Your task to perform on an android device: turn on wifi Image 0: 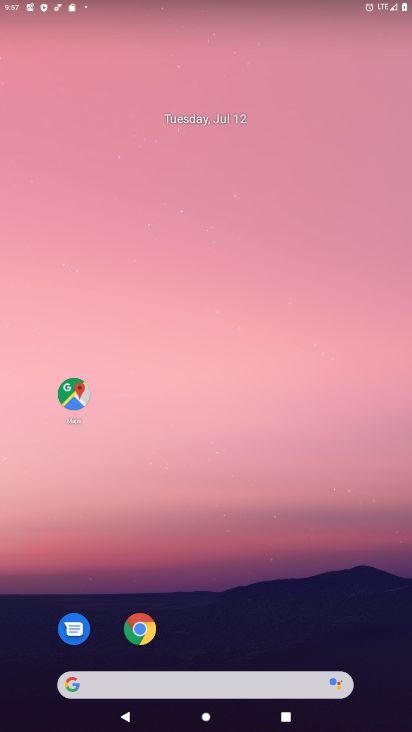
Step 0: drag from (383, 673) to (348, 237)
Your task to perform on an android device: turn on wifi Image 1: 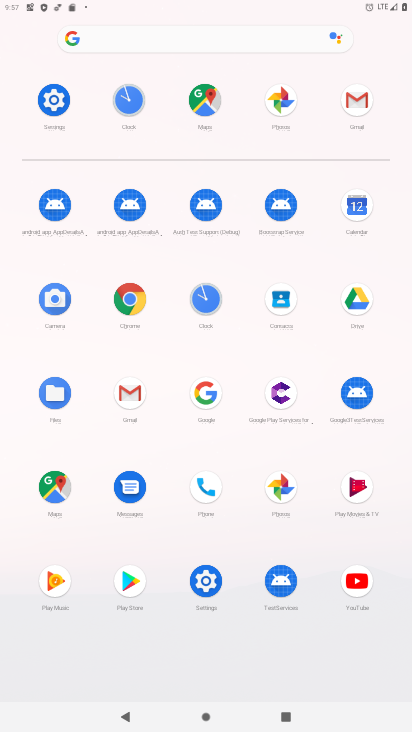
Step 1: click (205, 580)
Your task to perform on an android device: turn on wifi Image 2: 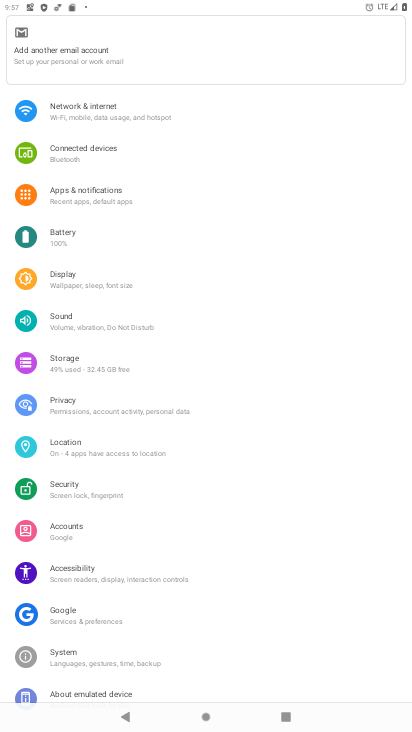
Step 2: click (66, 105)
Your task to perform on an android device: turn on wifi Image 3: 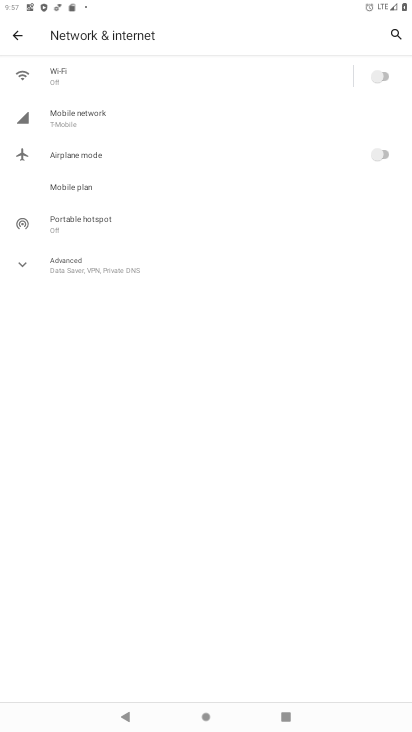
Step 3: click (385, 74)
Your task to perform on an android device: turn on wifi Image 4: 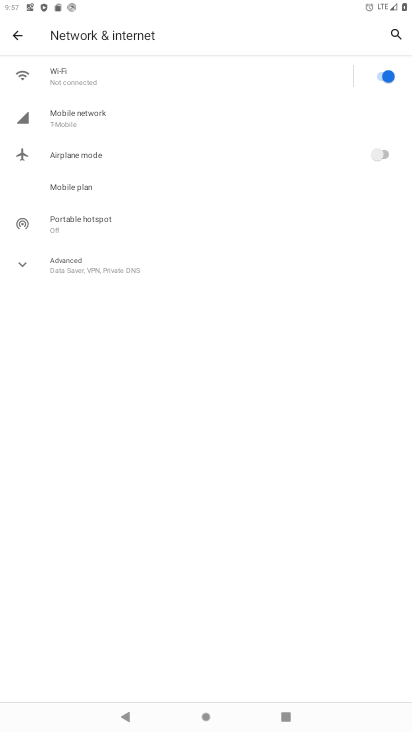
Step 4: task complete